Your task to perform on an android device: Open maps Image 0: 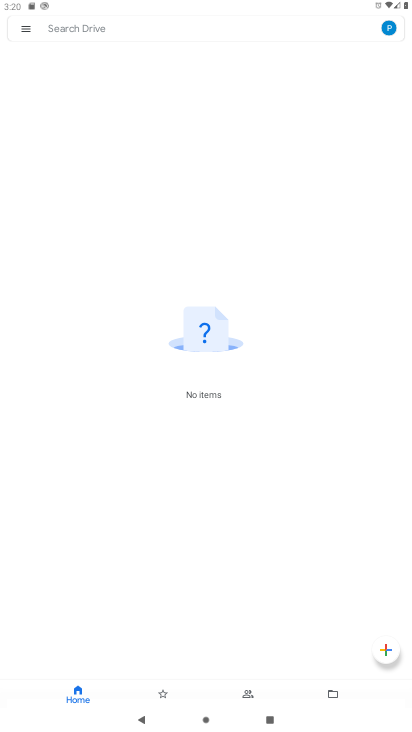
Step 0: press back button
Your task to perform on an android device: Open maps Image 1: 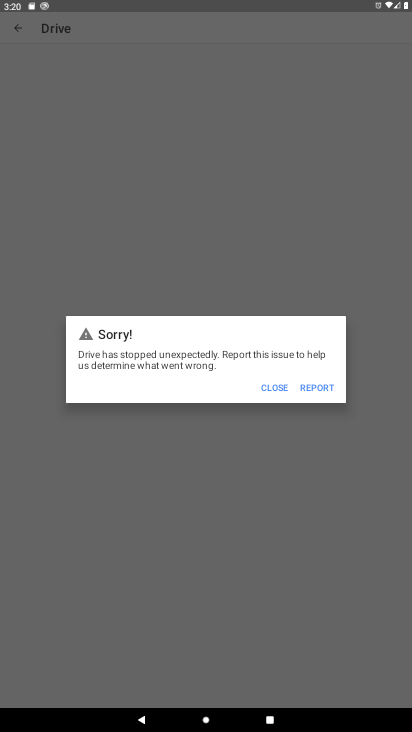
Step 1: press back button
Your task to perform on an android device: Open maps Image 2: 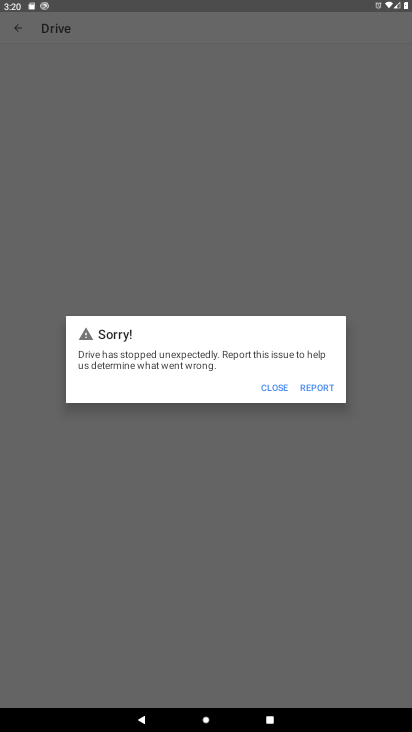
Step 2: press home button
Your task to perform on an android device: Open maps Image 3: 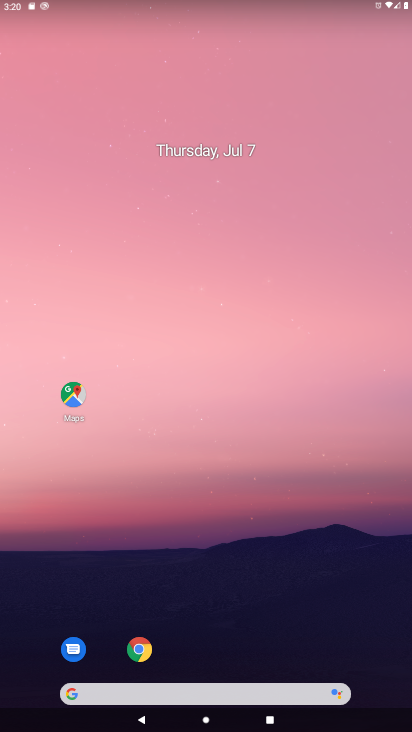
Step 3: click (78, 383)
Your task to perform on an android device: Open maps Image 4: 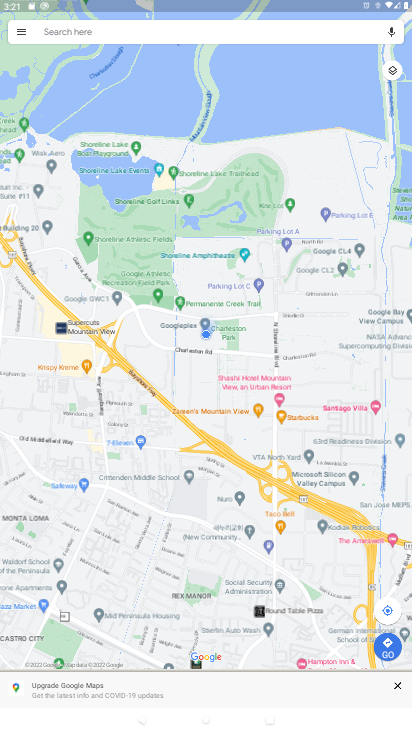
Step 4: task complete